Your task to perform on an android device: What's on my calendar today? Image 0: 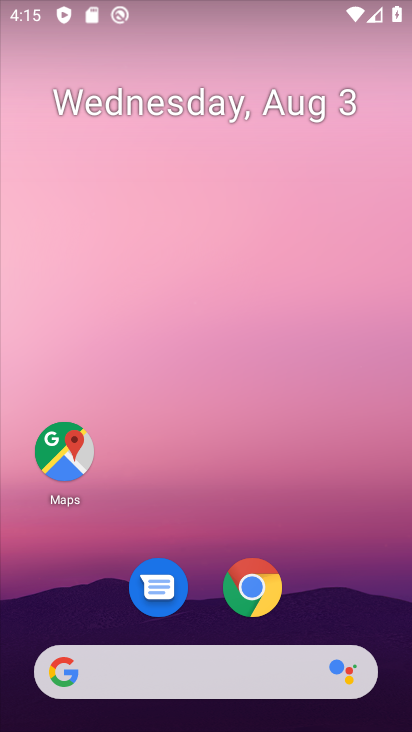
Step 0: drag from (7, 652) to (116, 113)
Your task to perform on an android device: What's on my calendar today? Image 1: 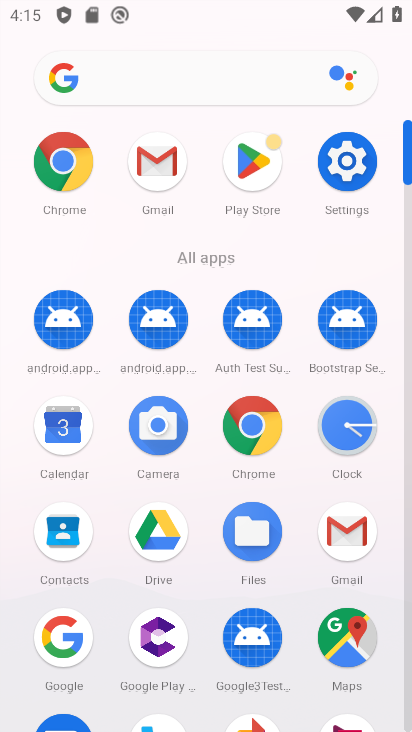
Step 1: click (56, 424)
Your task to perform on an android device: What's on my calendar today? Image 2: 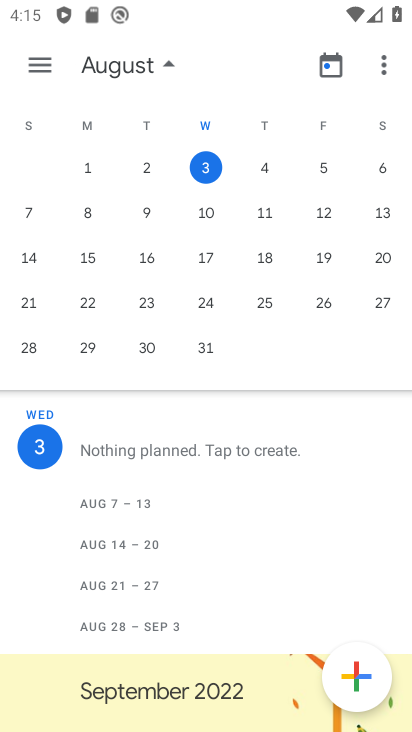
Step 2: task complete